Your task to perform on an android device: Open the phone app and click the voicemail tab. Image 0: 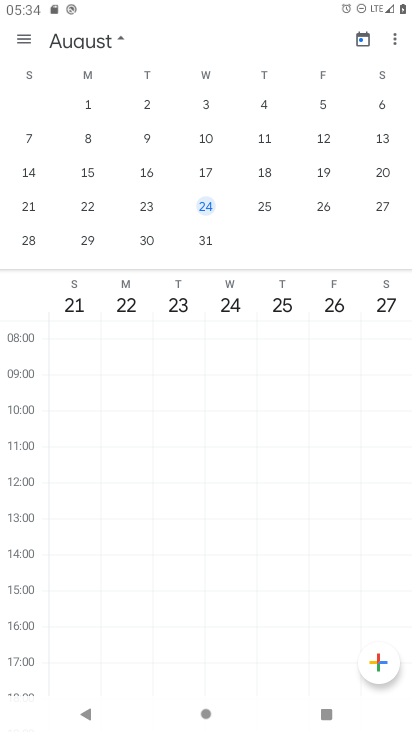
Step 0: press home button
Your task to perform on an android device: Open the phone app and click the voicemail tab. Image 1: 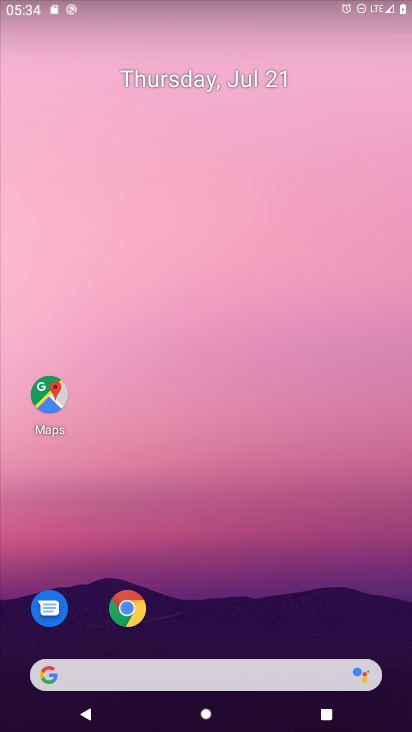
Step 1: drag from (218, 680) to (315, 47)
Your task to perform on an android device: Open the phone app and click the voicemail tab. Image 2: 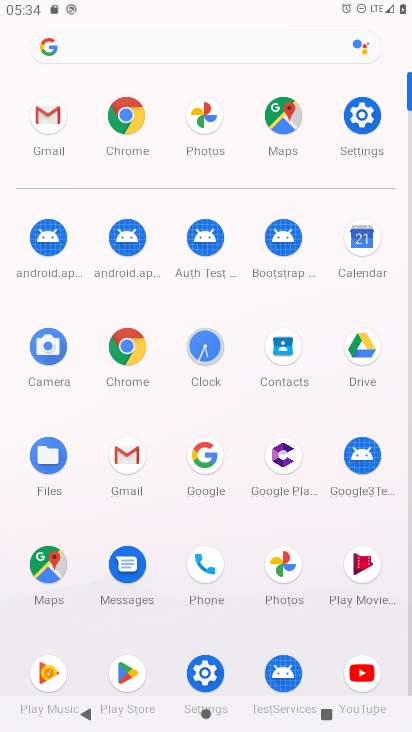
Step 2: click (209, 565)
Your task to perform on an android device: Open the phone app and click the voicemail tab. Image 3: 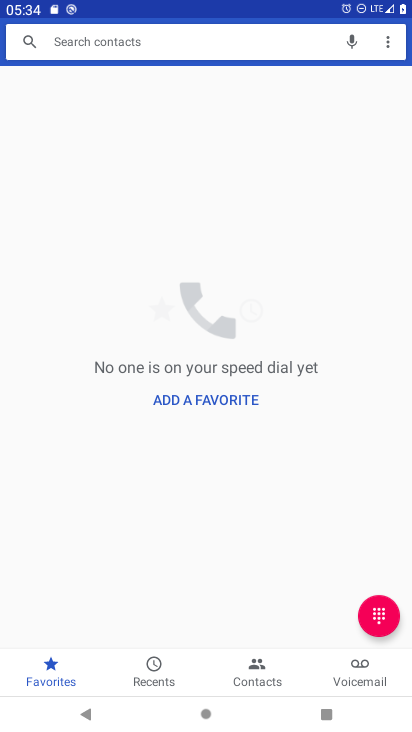
Step 3: click (371, 672)
Your task to perform on an android device: Open the phone app and click the voicemail tab. Image 4: 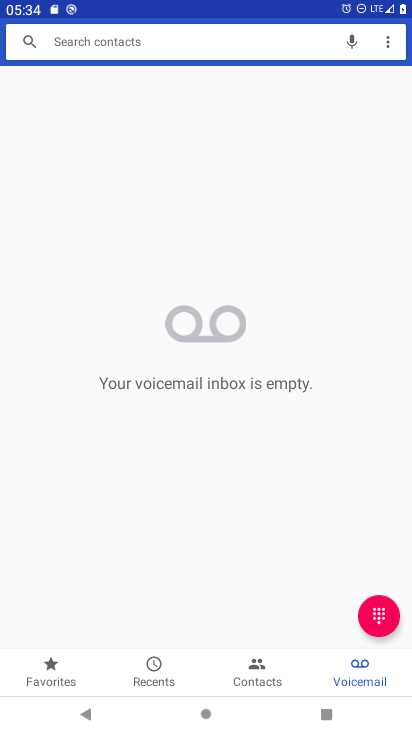
Step 4: task complete